Your task to perform on an android device: turn notification dots off Image 0: 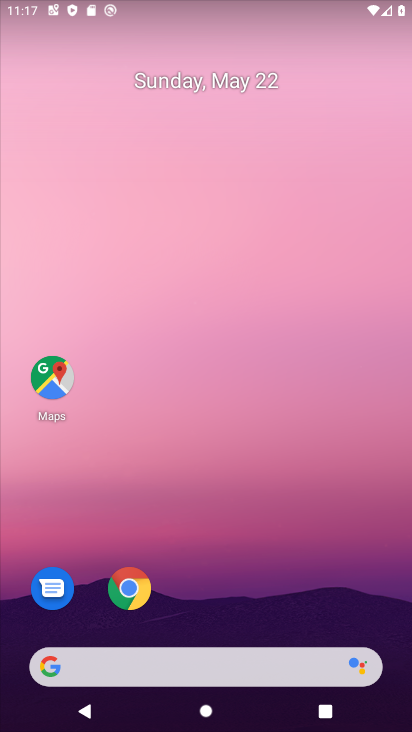
Step 0: drag from (192, 640) to (264, 155)
Your task to perform on an android device: turn notification dots off Image 1: 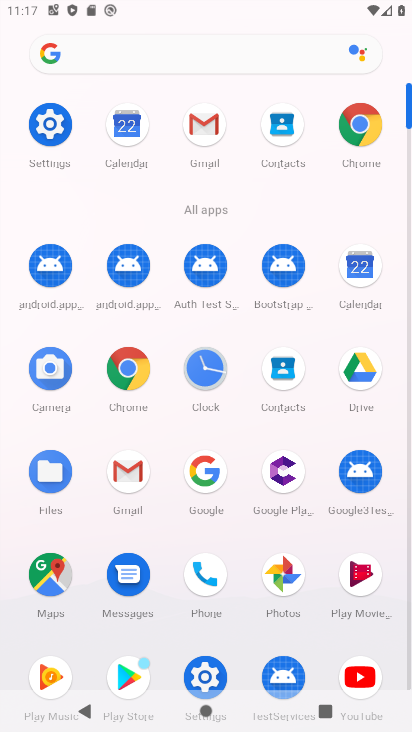
Step 1: click (43, 139)
Your task to perform on an android device: turn notification dots off Image 2: 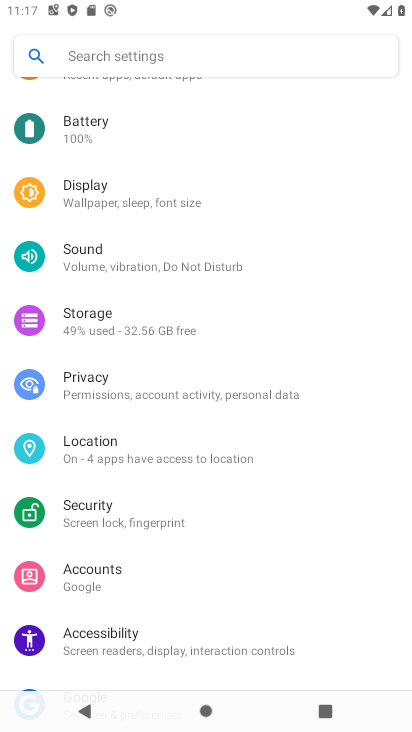
Step 2: drag from (292, 122) to (273, 539)
Your task to perform on an android device: turn notification dots off Image 3: 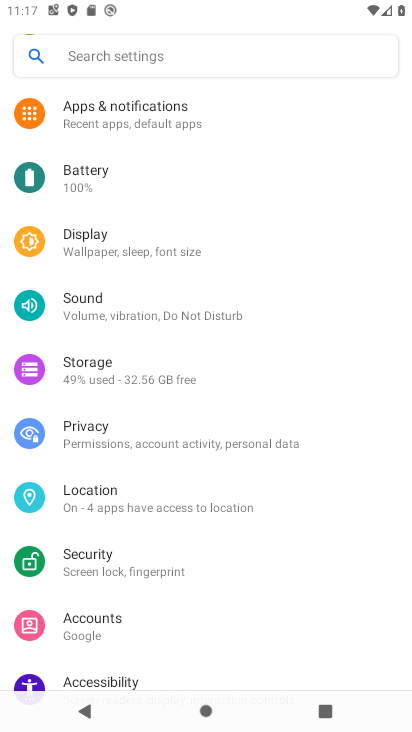
Step 3: click (97, 123)
Your task to perform on an android device: turn notification dots off Image 4: 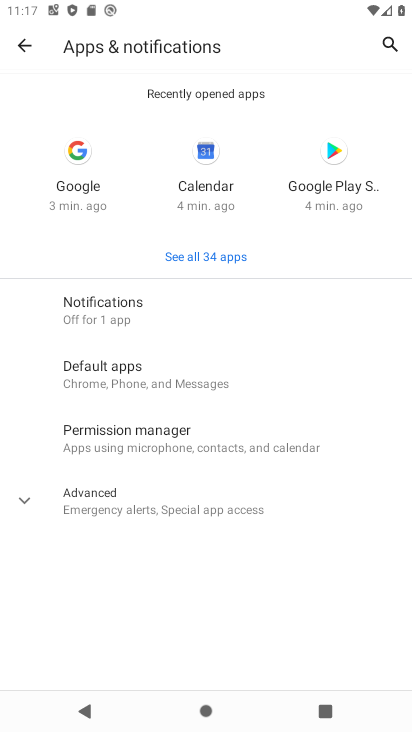
Step 4: click (113, 490)
Your task to perform on an android device: turn notification dots off Image 5: 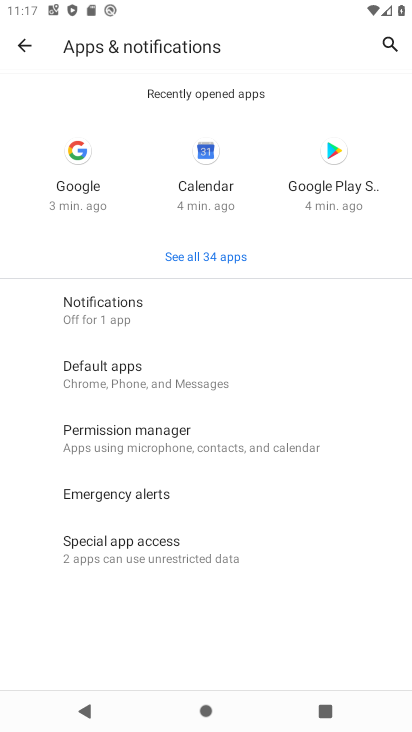
Step 5: click (137, 312)
Your task to perform on an android device: turn notification dots off Image 6: 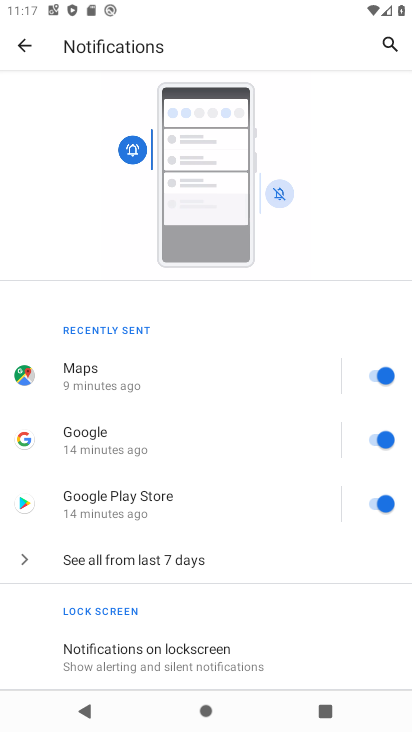
Step 6: drag from (234, 607) to (250, 115)
Your task to perform on an android device: turn notification dots off Image 7: 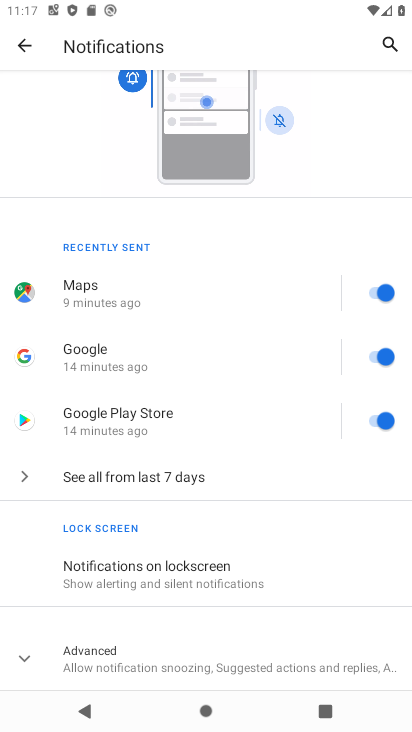
Step 7: click (129, 664)
Your task to perform on an android device: turn notification dots off Image 8: 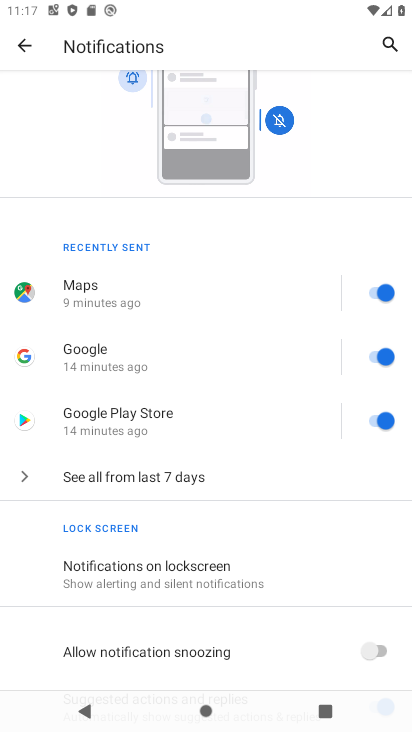
Step 8: drag from (310, 651) to (315, 559)
Your task to perform on an android device: turn notification dots off Image 9: 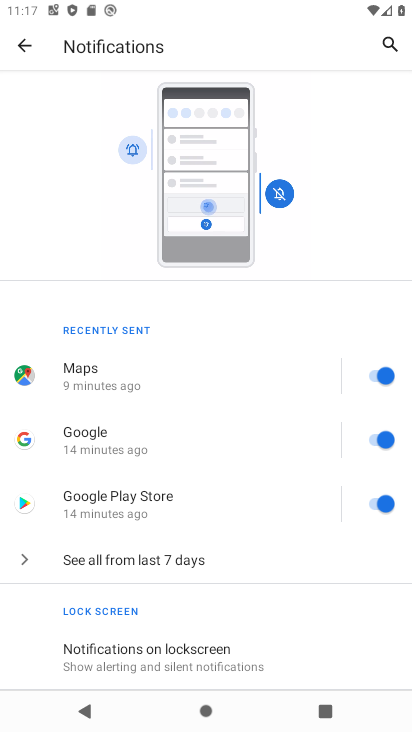
Step 9: drag from (298, 678) to (330, 314)
Your task to perform on an android device: turn notification dots off Image 10: 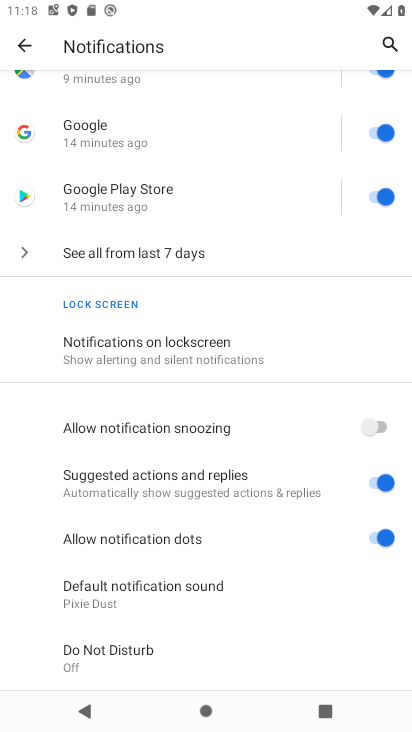
Step 10: click (380, 538)
Your task to perform on an android device: turn notification dots off Image 11: 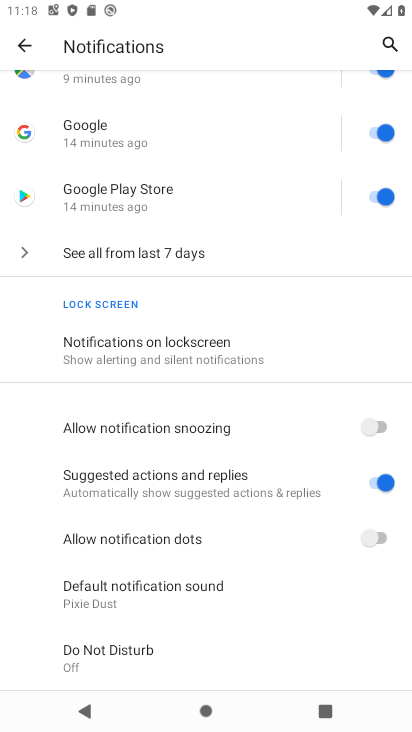
Step 11: task complete